Your task to perform on an android device: change the clock style Image 0: 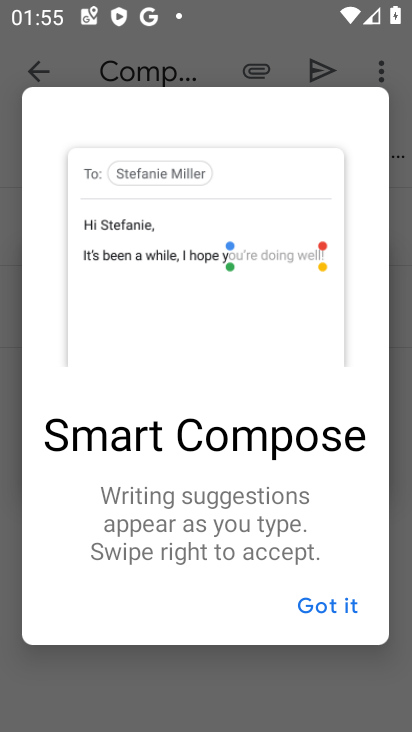
Step 0: press home button
Your task to perform on an android device: change the clock style Image 1: 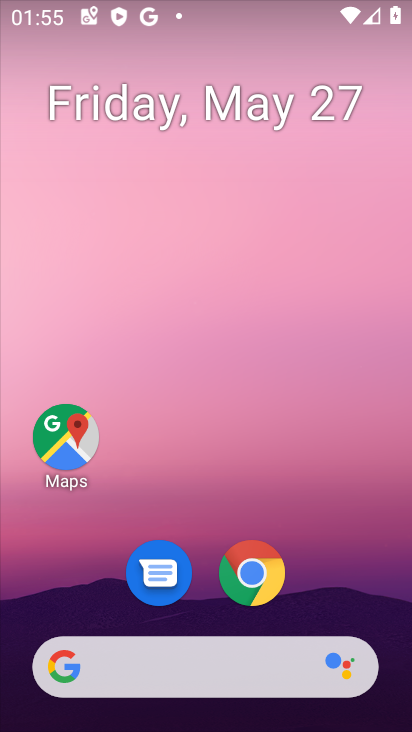
Step 1: drag from (195, 604) to (137, 93)
Your task to perform on an android device: change the clock style Image 2: 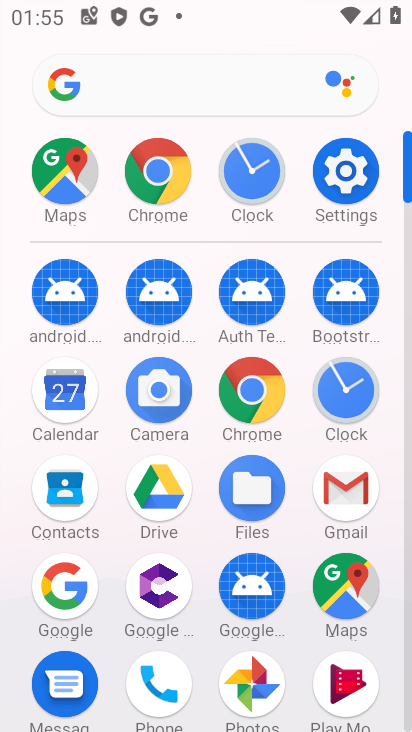
Step 2: click (350, 420)
Your task to perform on an android device: change the clock style Image 3: 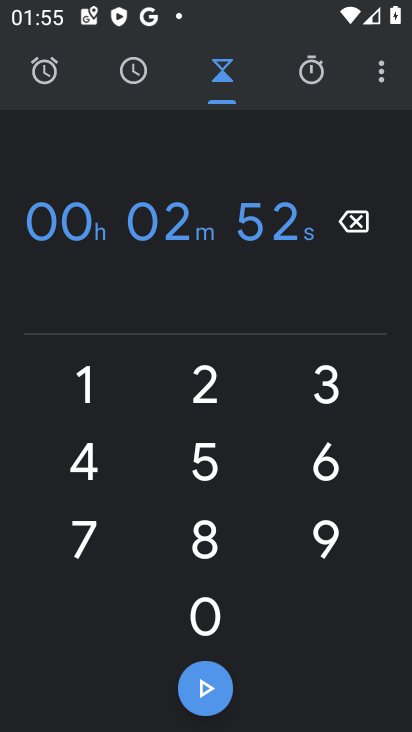
Step 3: click (384, 68)
Your task to perform on an android device: change the clock style Image 4: 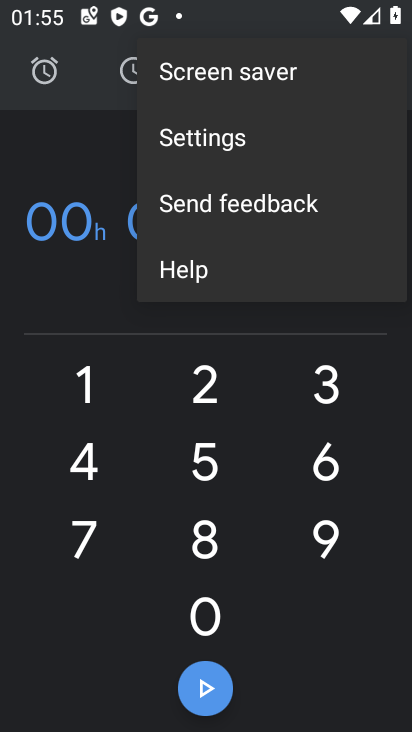
Step 4: click (215, 140)
Your task to perform on an android device: change the clock style Image 5: 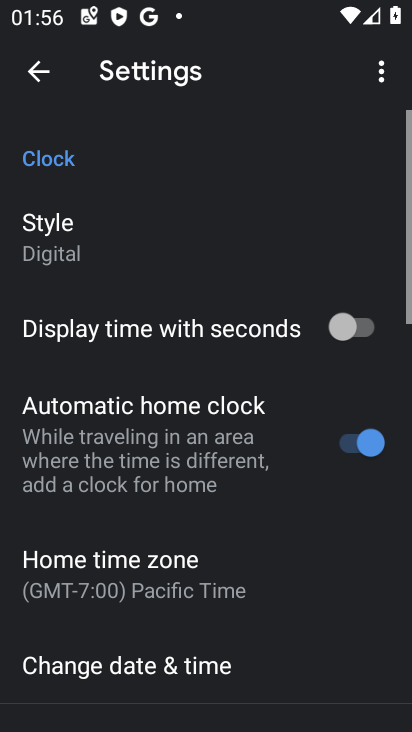
Step 5: click (109, 200)
Your task to perform on an android device: change the clock style Image 6: 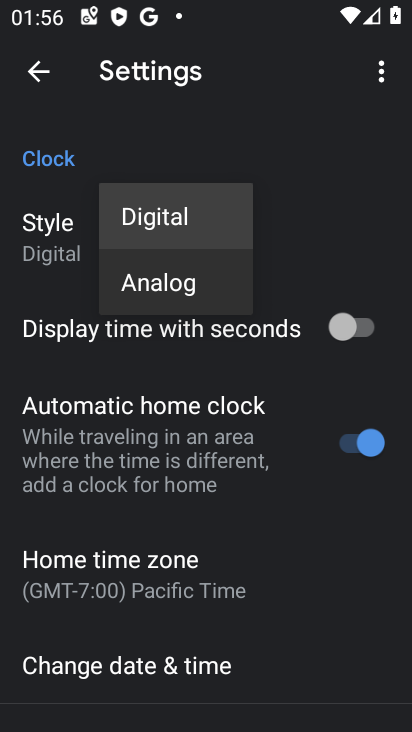
Step 6: click (181, 275)
Your task to perform on an android device: change the clock style Image 7: 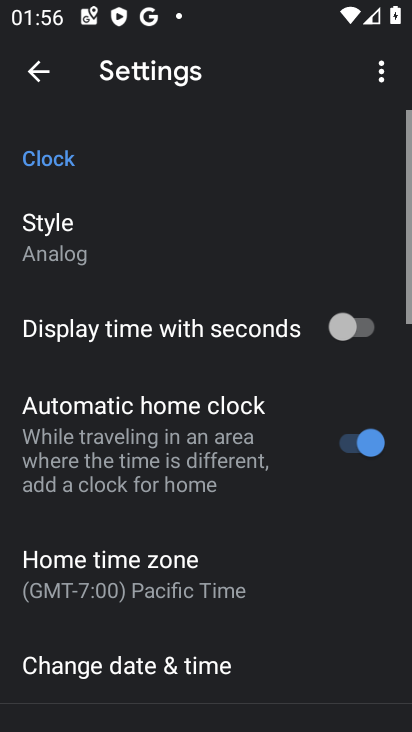
Step 7: task complete